Your task to perform on an android device: change the clock display to digital Image 0: 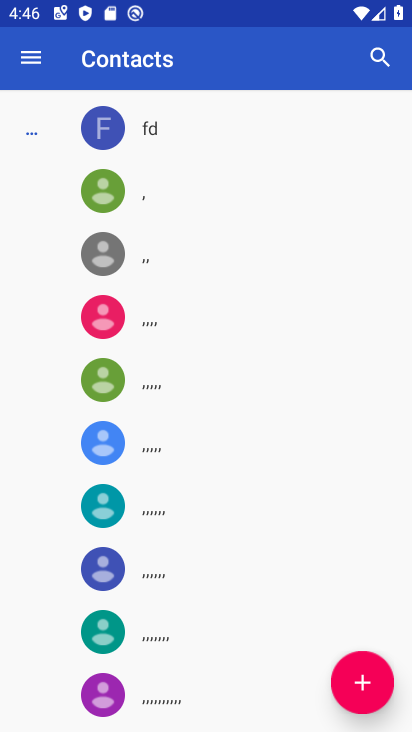
Step 0: press home button
Your task to perform on an android device: change the clock display to digital Image 1: 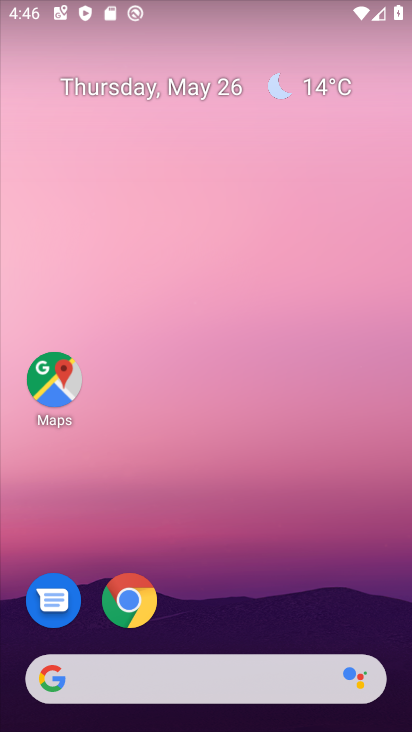
Step 1: drag from (201, 630) to (283, 20)
Your task to perform on an android device: change the clock display to digital Image 2: 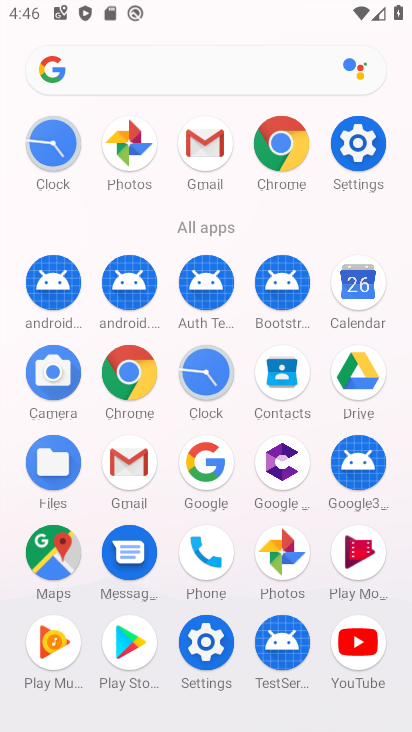
Step 2: click (59, 133)
Your task to perform on an android device: change the clock display to digital Image 3: 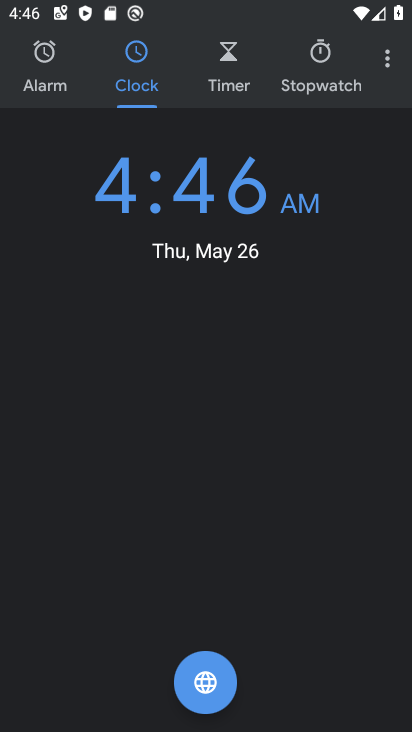
Step 3: click (389, 58)
Your task to perform on an android device: change the clock display to digital Image 4: 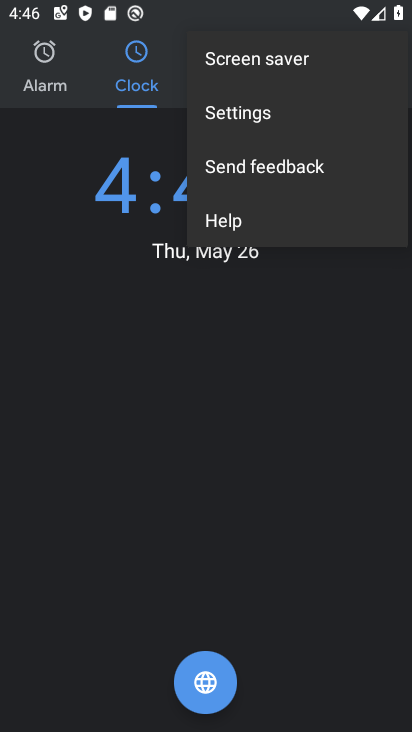
Step 4: click (280, 120)
Your task to perform on an android device: change the clock display to digital Image 5: 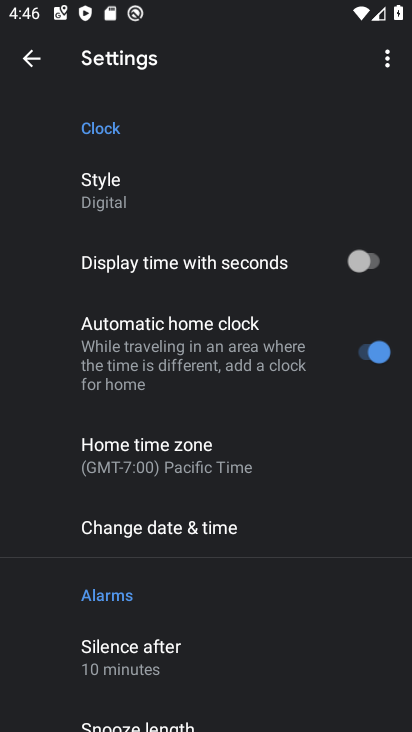
Step 5: task complete